Your task to perform on an android device: Go to accessibility settings Image 0: 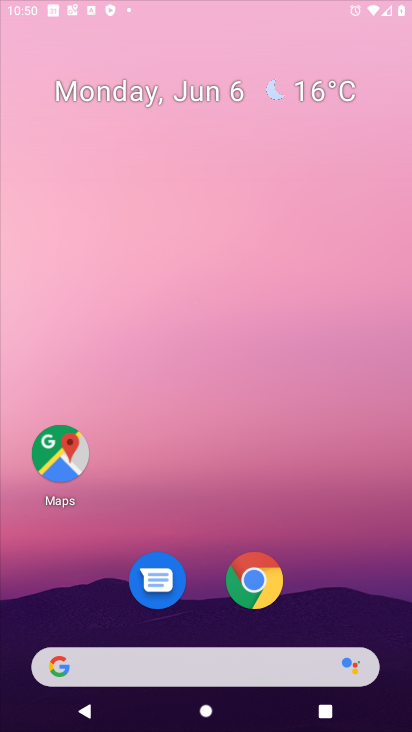
Step 0: drag from (320, 25) to (121, 12)
Your task to perform on an android device: Go to accessibility settings Image 1: 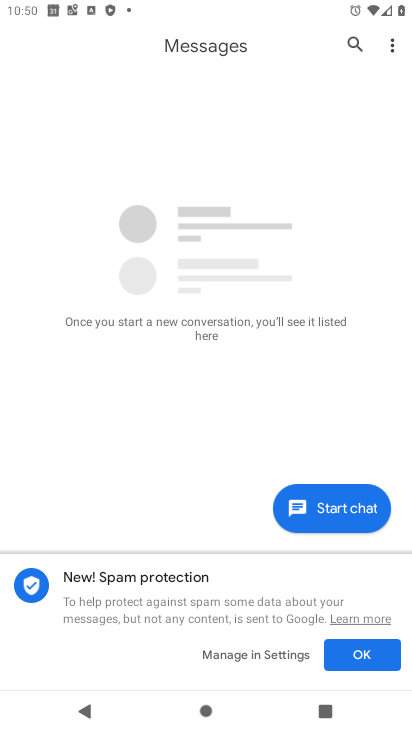
Step 1: press home button
Your task to perform on an android device: Go to accessibility settings Image 2: 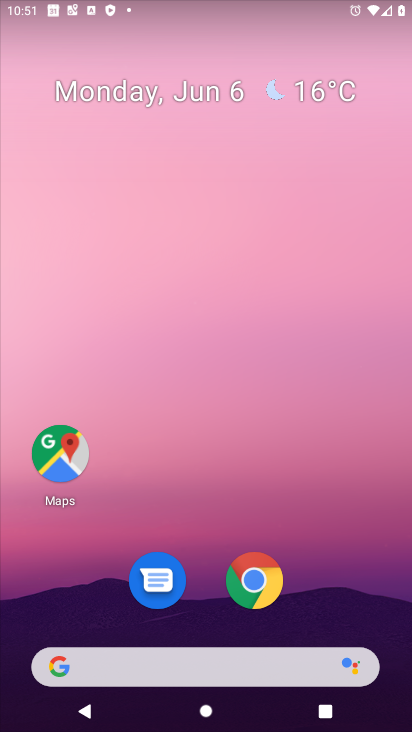
Step 2: drag from (362, 548) to (124, 1)
Your task to perform on an android device: Go to accessibility settings Image 3: 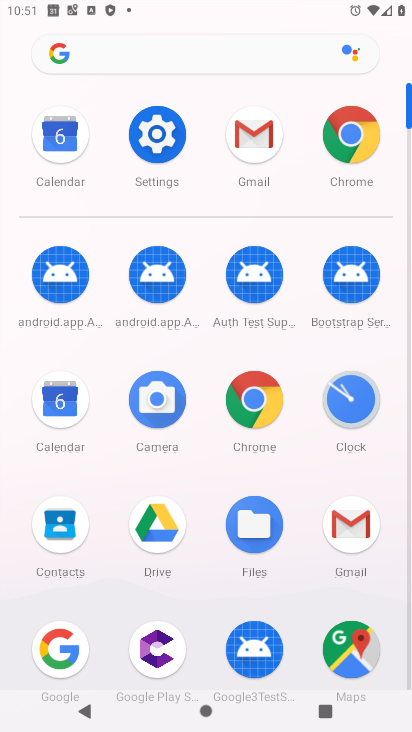
Step 3: click (141, 153)
Your task to perform on an android device: Go to accessibility settings Image 4: 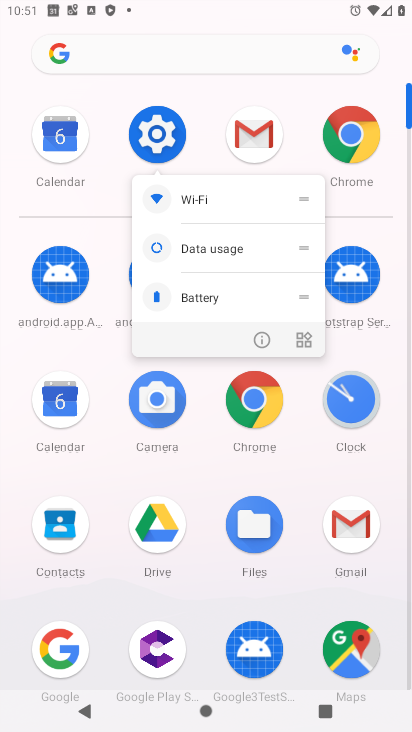
Step 4: click (129, 128)
Your task to perform on an android device: Go to accessibility settings Image 5: 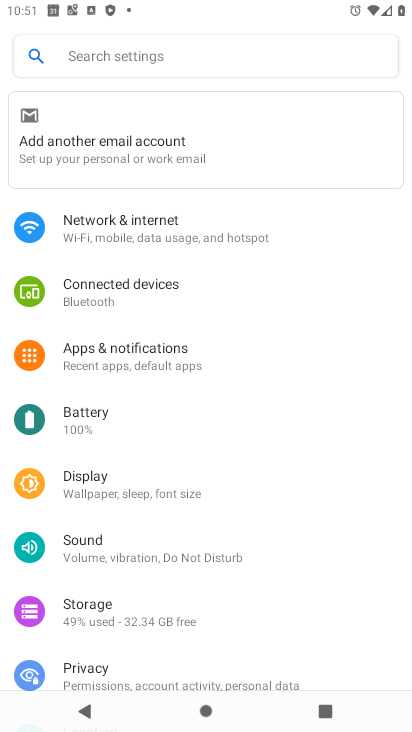
Step 5: drag from (158, 572) to (117, 231)
Your task to perform on an android device: Go to accessibility settings Image 6: 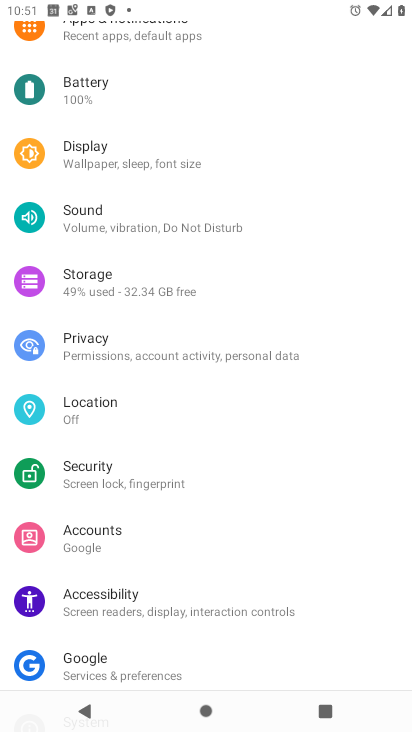
Step 6: click (103, 600)
Your task to perform on an android device: Go to accessibility settings Image 7: 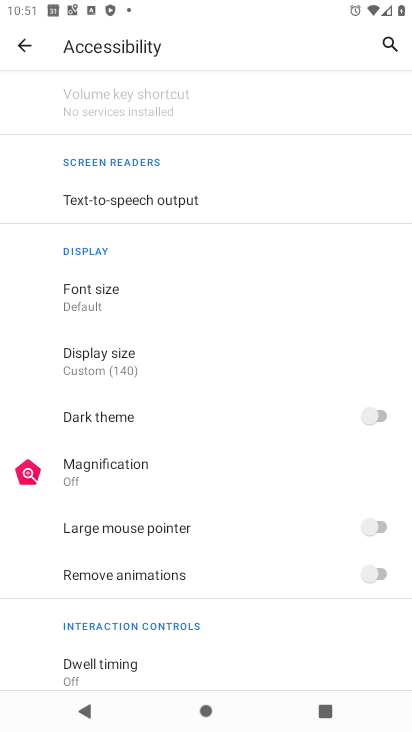
Step 7: task complete